Your task to perform on an android device: Show me popular games on the Play Store Image 0: 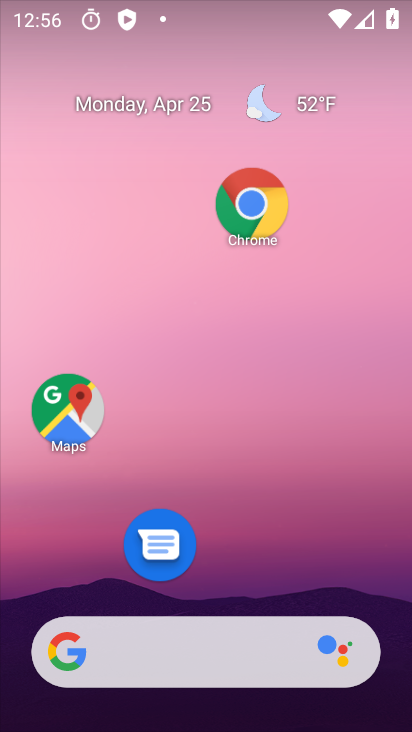
Step 0: drag from (349, 673) to (306, 174)
Your task to perform on an android device: Show me popular games on the Play Store Image 1: 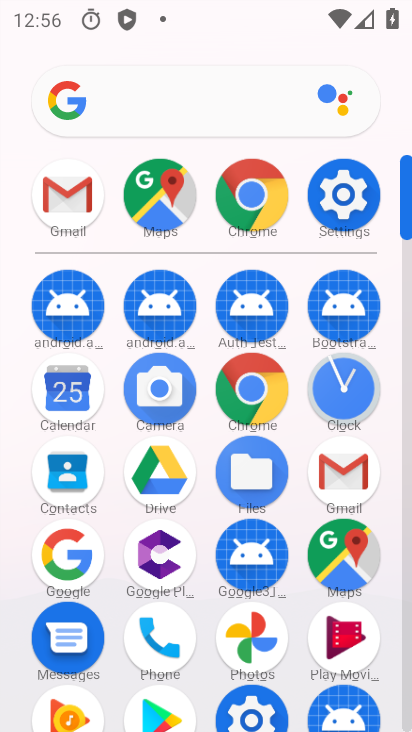
Step 1: click (152, 698)
Your task to perform on an android device: Show me popular games on the Play Store Image 2: 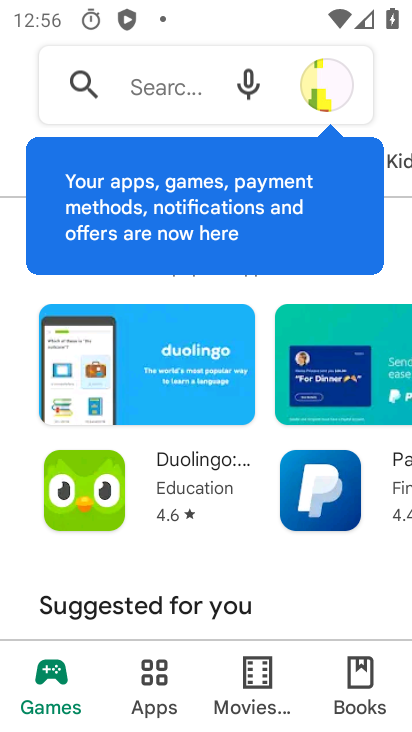
Step 2: click (172, 74)
Your task to perform on an android device: Show me popular games on the Play Store Image 3: 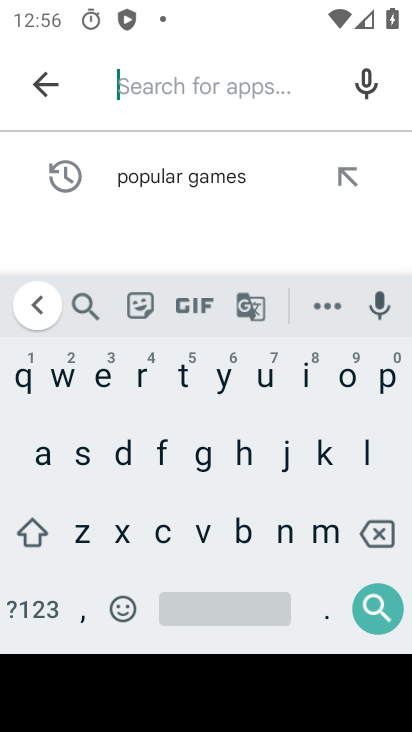
Step 3: click (178, 171)
Your task to perform on an android device: Show me popular games on the Play Store Image 4: 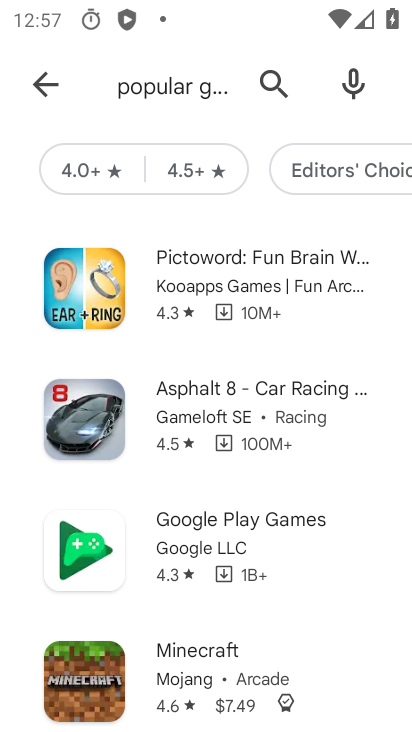
Step 4: task complete